Your task to perform on an android device: clear all cookies in the chrome app Image 0: 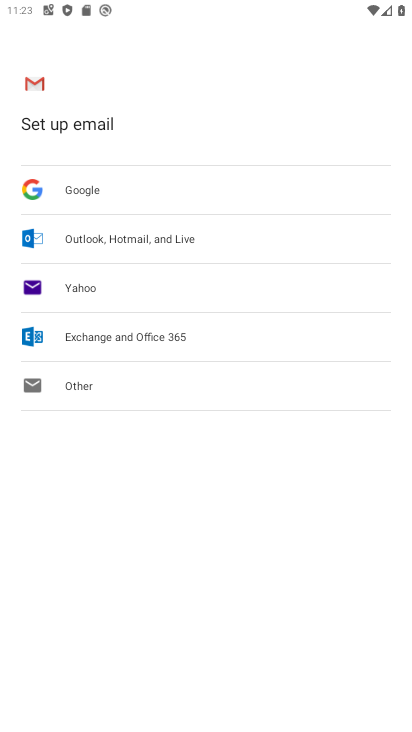
Step 0: press back button
Your task to perform on an android device: clear all cookies in the chrome app Image 1: 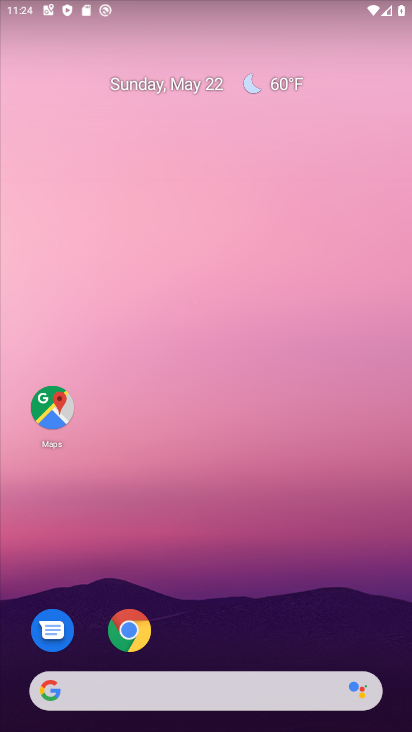
Step 1: click (131, 631)
Your task to perform on an android device: clear all cookies in the chrome app Image 2: 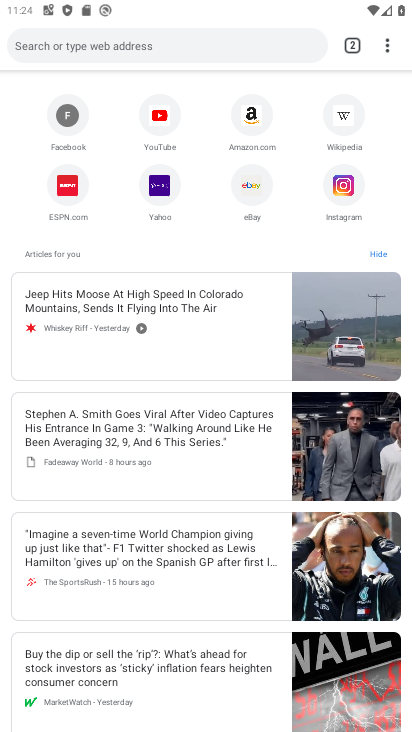
Step 2: click (386, 45)
Your task to perform on an android device: clear all cookies in the chrome app Image 3: 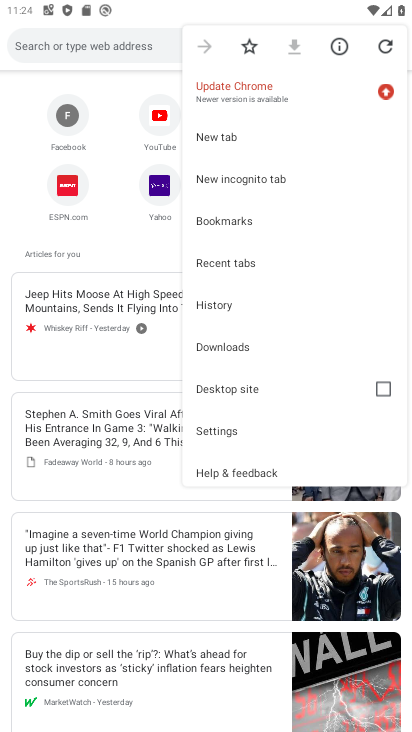
Step 3: click (216, 429)
Your task to perform on an android device: clear all cookies in the chrome app Image 4: 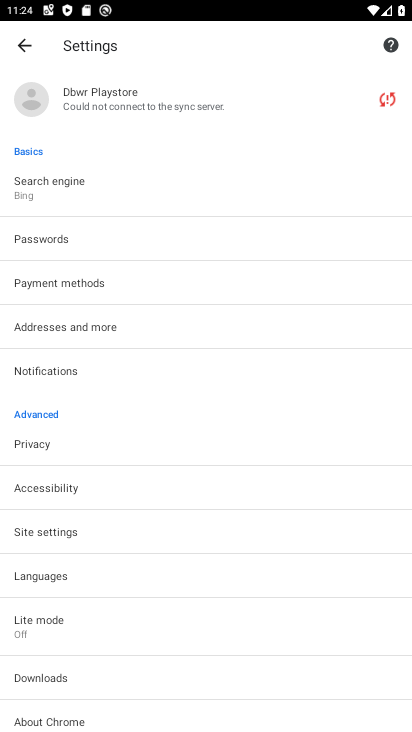
Step 4: click (35, 436)
Your task to perform on an android device: clear all cookies in the chrome app Image 5: 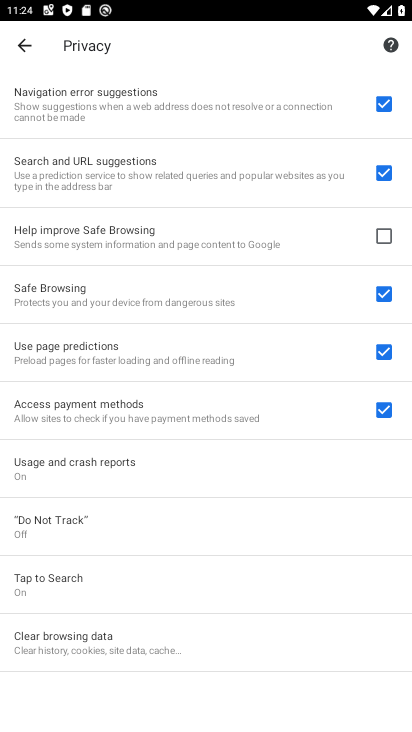
Step 5: click (60, 645)
Your task to perform on an android device: clear all cookies in the chrome app Image 6: 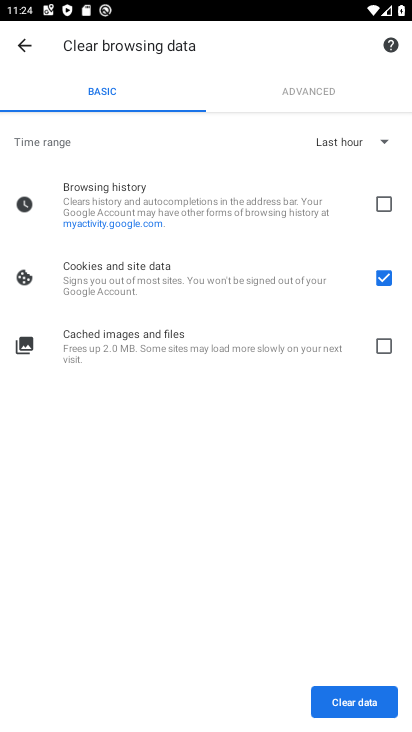
Step 6: click (372, 142)
Your task to perform on an android device: clear all cookies in the chrome app Image 7: 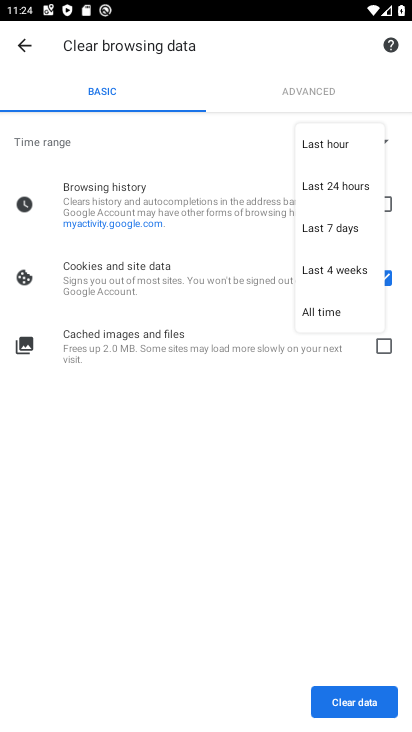
Step 7: click (308, 321)
Your task to perform on an android device: clear all cookies in the chrome app Image 8: 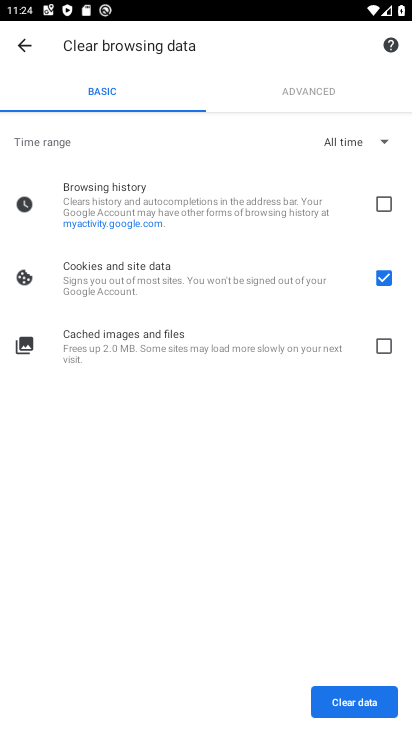
Step 8: click (345, 709)
Your task to perform on an android device: clear all cookies in the chrome app Image 9: 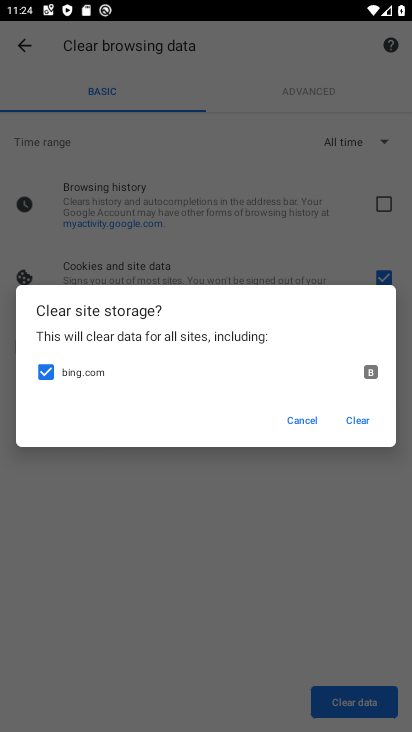
Step 9: click (367, 411)
Your task to perform on an android device: clear all cookies in the chrome app Image 10: 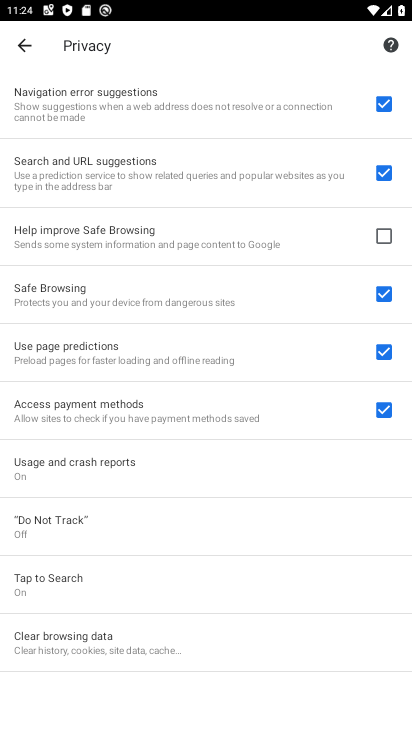
Step 10: task complete